Your task to perform on an android device: turn off javascript in the chrome app Image 0: 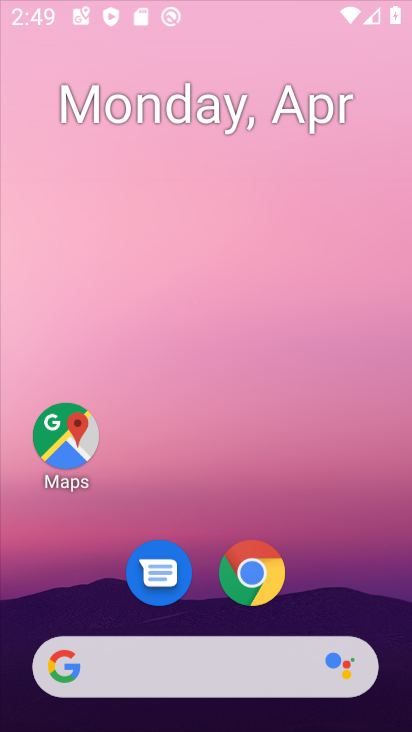
Step 0: click (351, 49)
Your task to perform on an android device: turn off javascript in the chrome app Image 1: 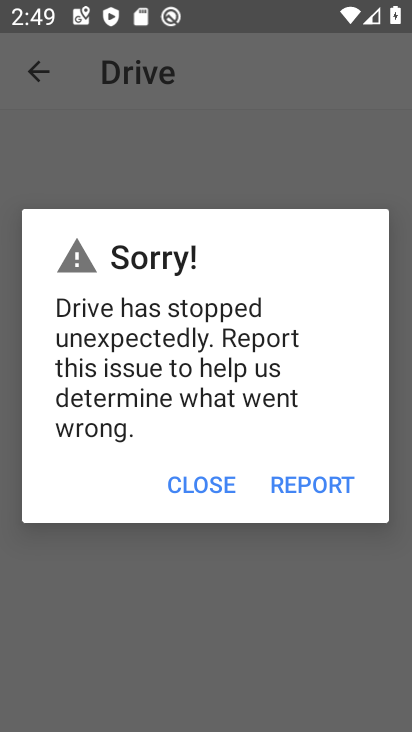
Step 1: press home button
Your task to perform on an android device: turn off javascript in the chrome app Image 2: 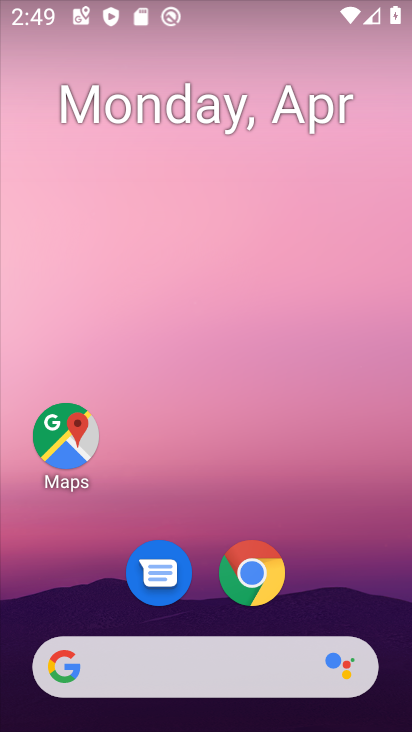
Step 2: drag from (349, 598) to (374, 122)
Your task to perform on an android device: turn off javascript in the chrome app Image 3: 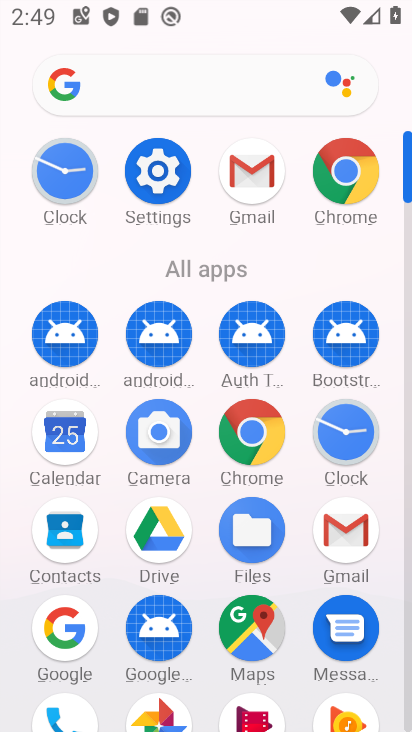
Step 3: click (257, 435)
Your task to perform on an android device: turn off javascript in the chrome app Image 4: 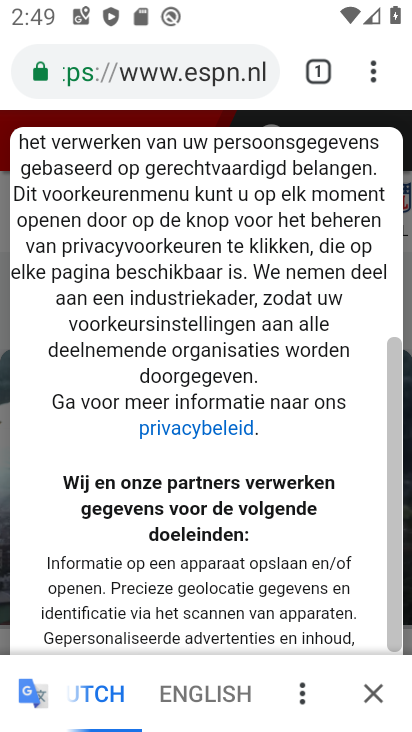
Step 4: click (377, 73)
Your task to perform on an android device: turn off javascript in the chrome app Image 5: 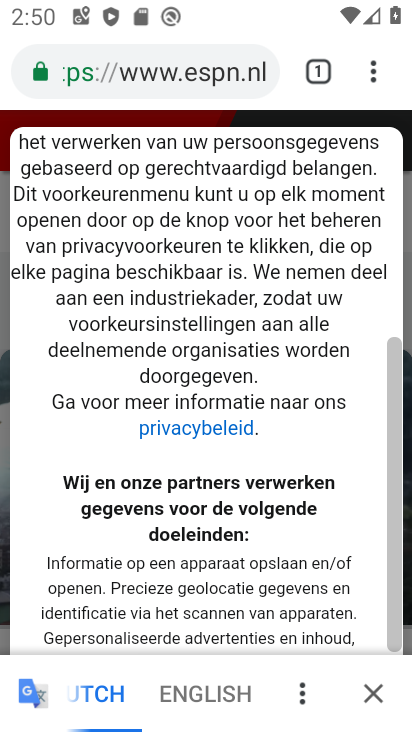
Step 5: click (374, 64)
Your task to perform on an android device: turn off javascript in the chrome app Image 6: 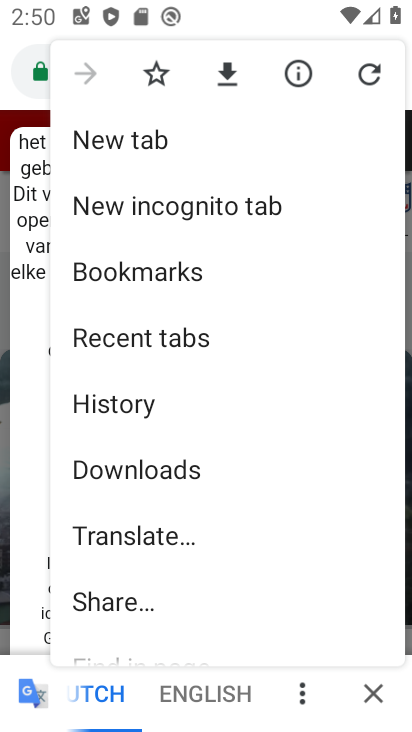
Step 6: drag from (304, 539) to (294, 371)
Your task to perform on an android device: turn off javascript in the chrome app Image 7: 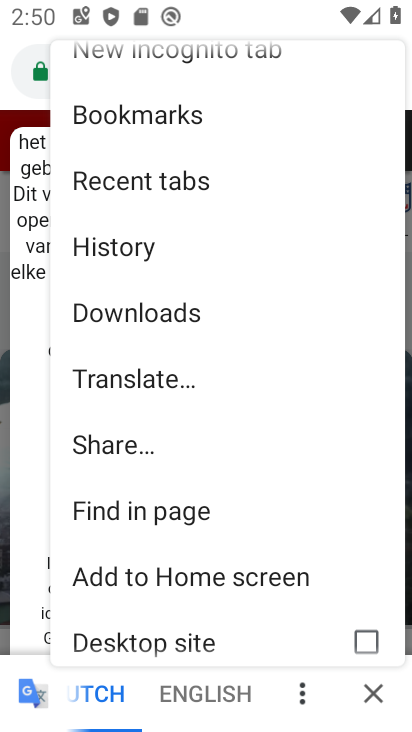
Step 7: drag from (333, 580) to (327, 343)
Your task to perform on an android device: turn off javascript in the chrome app Image 8: 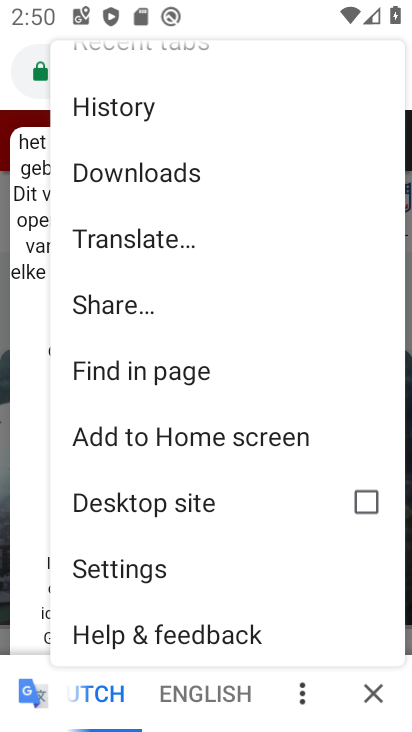
Step 8: click (163, 569)
Your task to perform on an android device: turn off javascript in the chrome app Image 9: 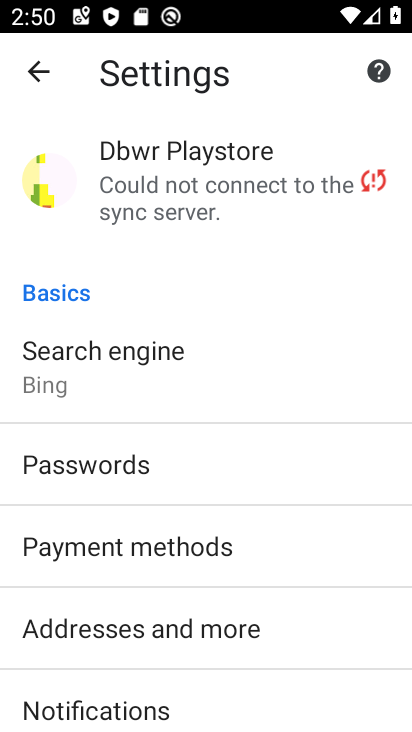
Step 9: drag from (326, 525) to (338, 380)
Your task to perform on an android device: turn off javascript in the chrome app Image 10: 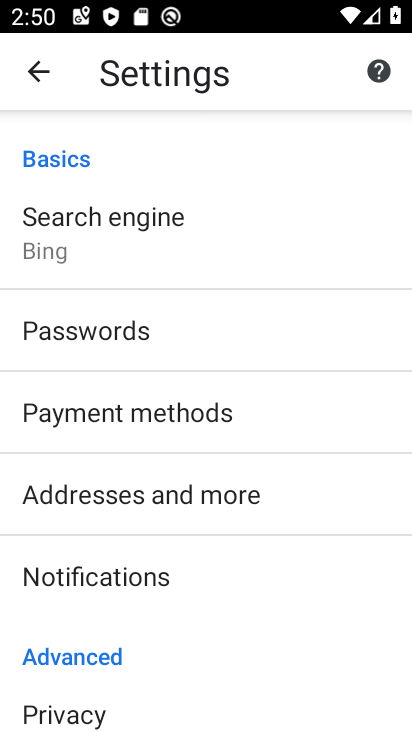
Step 10: drag from (322, 572) to (321, 462)
Your task to perform on an android device: turn off javascript in the chrome app Image 11: 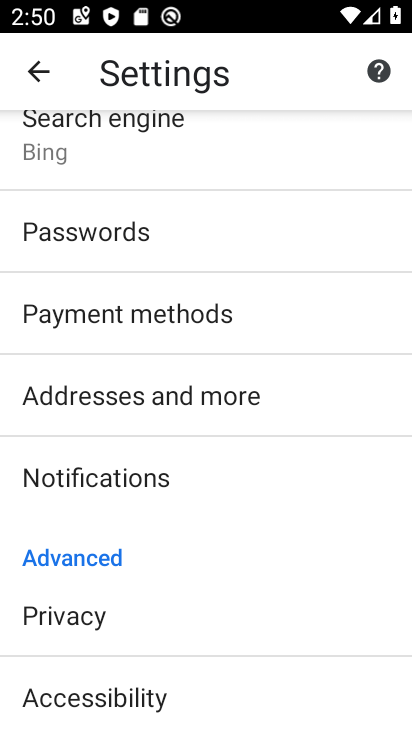
Step 11: drag from (296, 654) to (302, 475)
Your task to perform on an android device: turn off javascript in the chrome app Image 12: 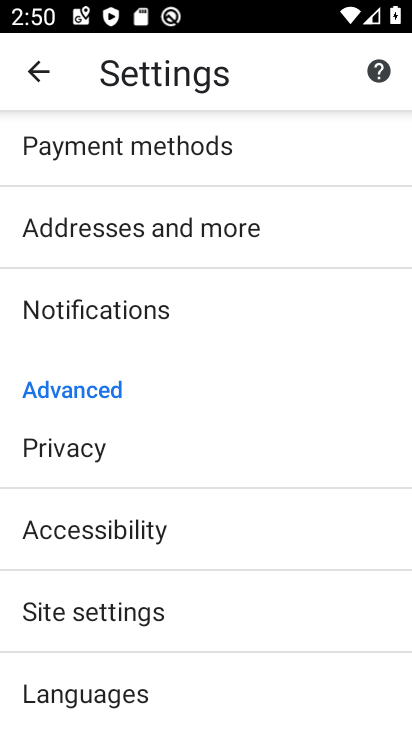
Step 12: drag from (274, 647) to (266, 448)
Your task to perform on an android device: turn off javascript in the chrome app Image 13: 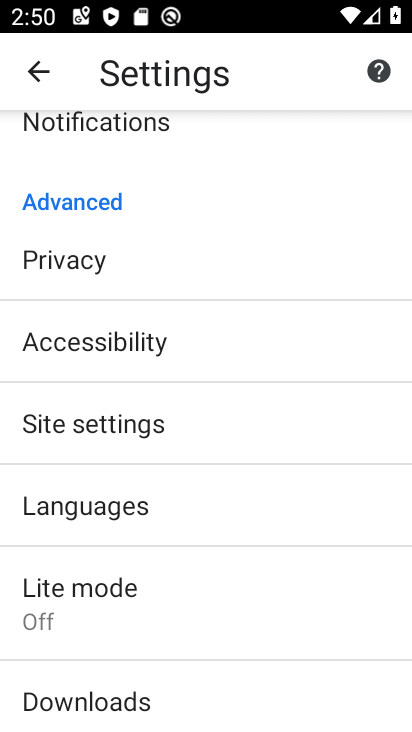
Step 13: click (243, 433)
Your task to perform on an android device: turn off javascript in the chrome app Image 14: 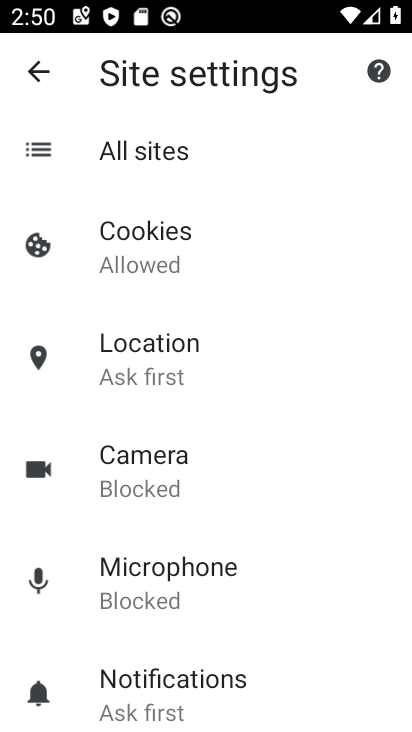
Step 14: drag from (295, 592) to (316, 430)
Your task to perform on an android device: turn off javascript in the chrome app Image 15: 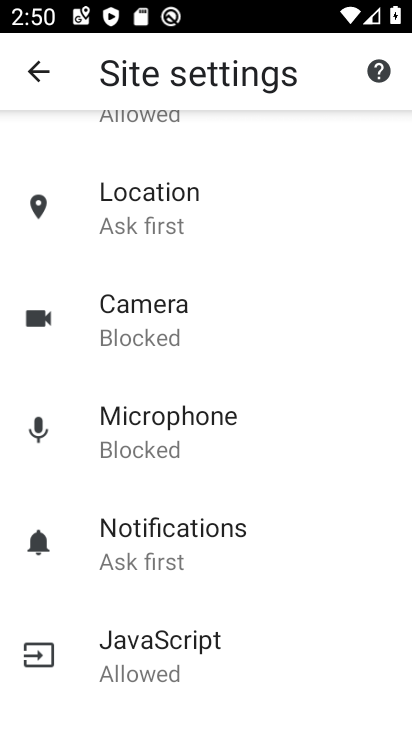
Step 15: drag from (308, 615) to (300, 467)
Your task to perform on an android device: turn off javascript in the chrome app Image 16: 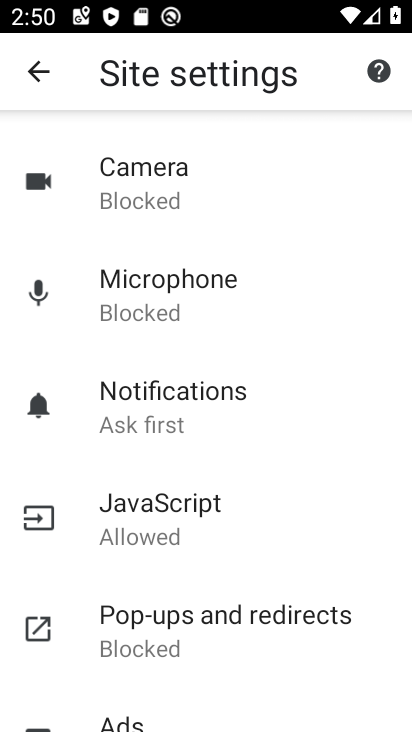
Step 16: click (178, 531)
Your task to perform on an android device: turn off javascript in the chrome app Image 17: 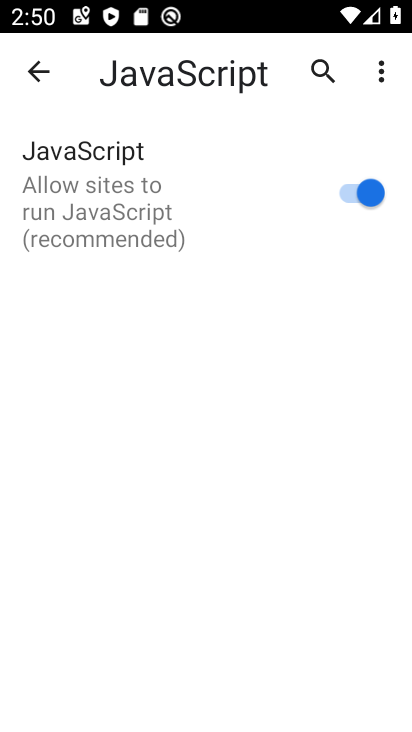
Step 17: click (352, 189)
Your task to perform on an android device: turn off javascript in the chrome app Image 18: 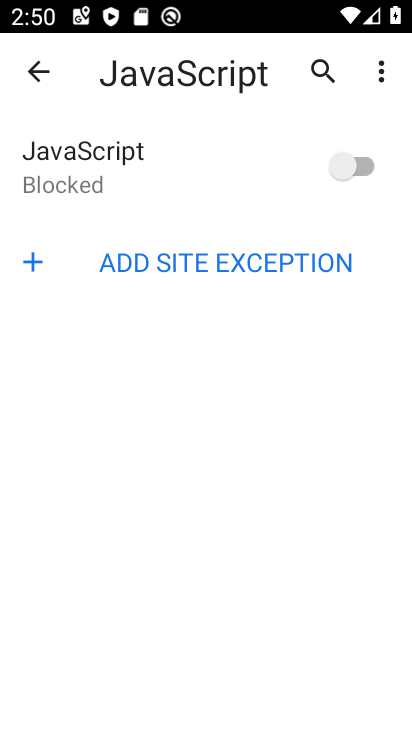
Step 18: task complete